Your task to perform on an android device: install app "PUBG MOBILE" Image 0: 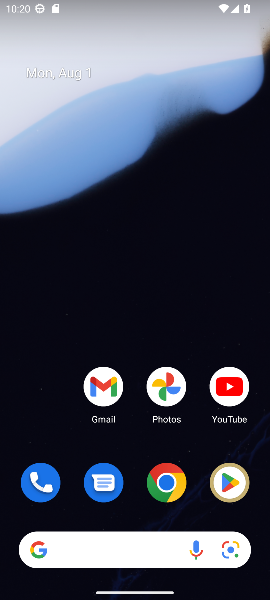
Step 0: drag from (133, 450) to (166, 37)
Your task to perform on an android device: install app "PUBG MOBILE" Image 1: 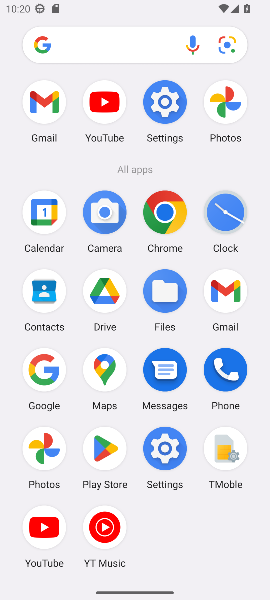
Step 1: click (113, 446)
Your task to perform on an android device: install app "PUBG MOBILE" Image 2: 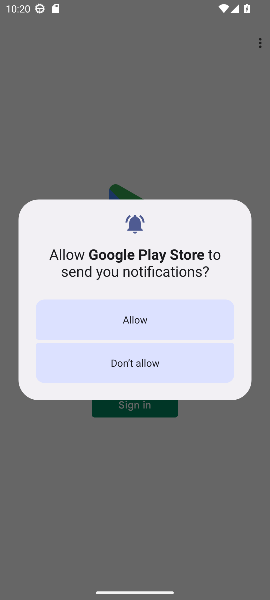
Step 2: click (131, 314)
Your task to perform on an android device: install app "PUBG MOBILE" Image 3: 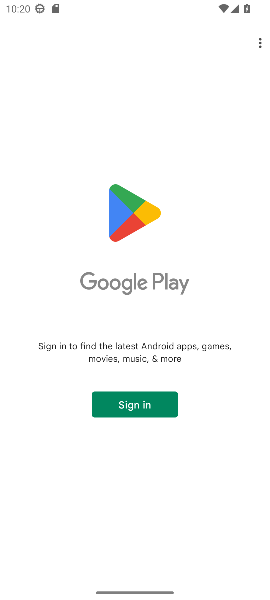
Step 3: click (143, 398)
Your task to perform on an android device: install app "PUBG MOBILE" Image 4: 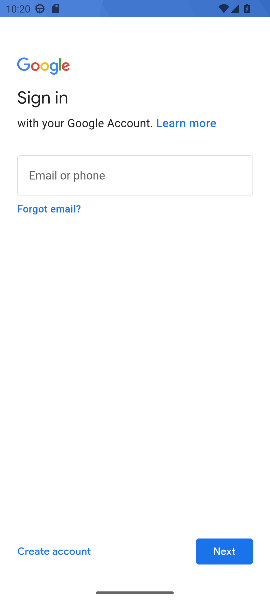
Step 4: task complete